Your task to perform on an android device: Go to sound settings Image 0: 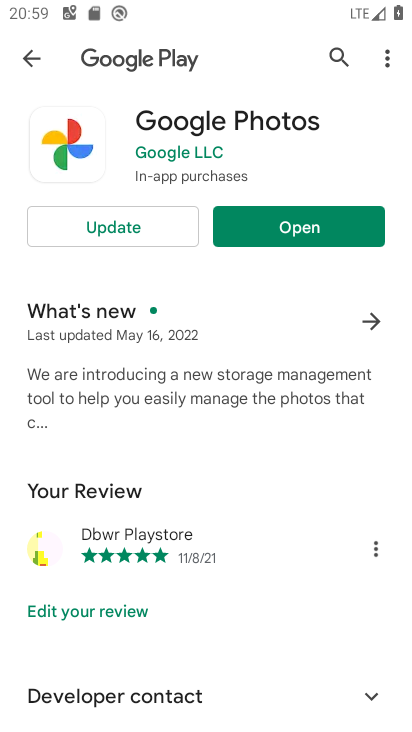
Step 0: press home button
Your task to perform on an android device: Go to sound settings Image 1: 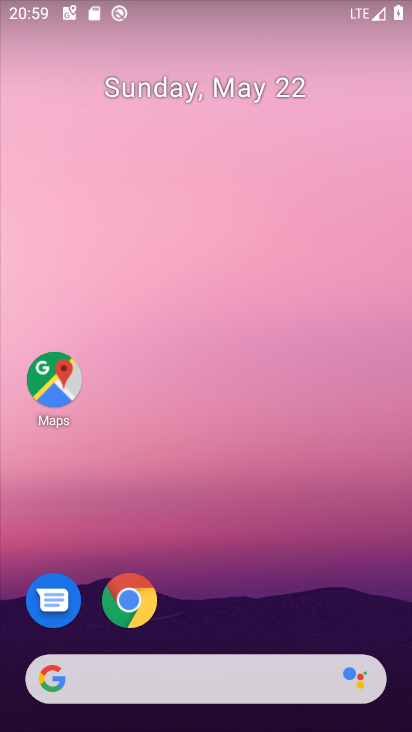
Step 1: drag from (178, 660) to (251, 404)
Your task to perform on an android device: Go to sound settings Image 2: 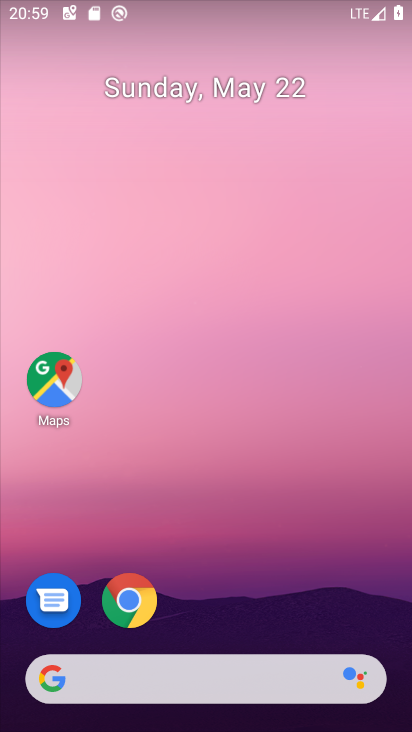
Step 2: drag from (260, 565) to (268, 319)
Your task to perform on an android device: Go to sound settings Image 3: 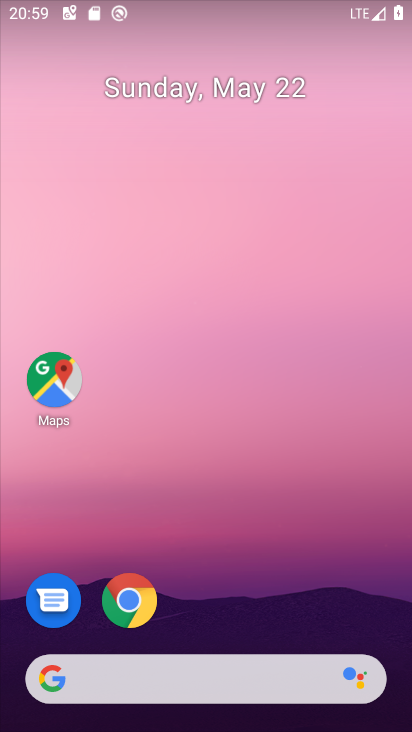
Step 3: drag from (190, 650) to (239, 270)
Your task to perform on an android device: Go to sound settings Image 4: 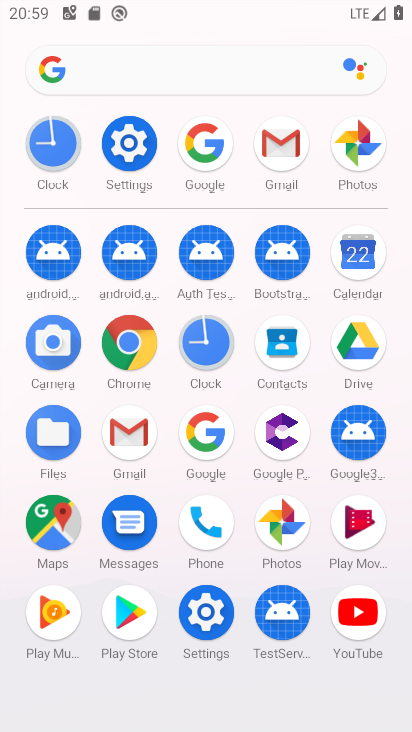
Step 4: click (131, 152)
Your task to perform on an android device: Go to sound settings Image 5: 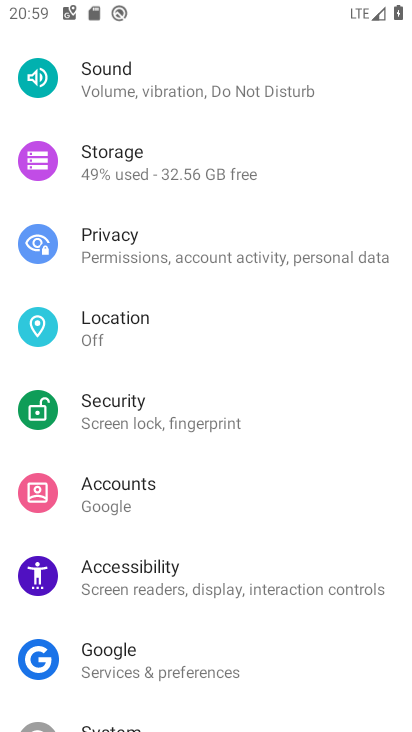
Step 5: click (122, 80)
Your task to perform on an android device: Go to sound settings Image 6: 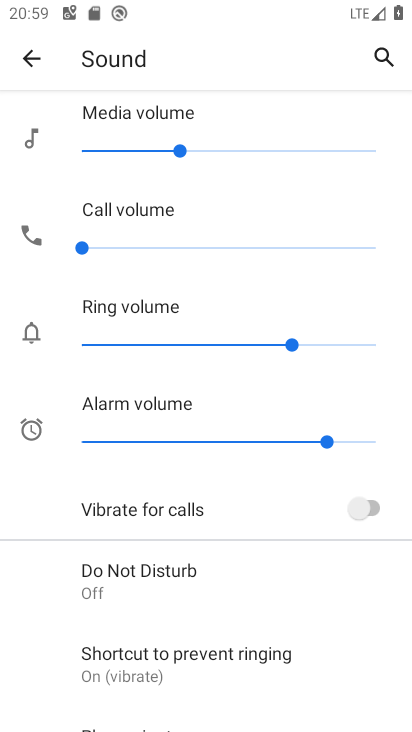
Step 6: task complete